Your task to perform on an android device: empty trash in the gmail app Image 0: 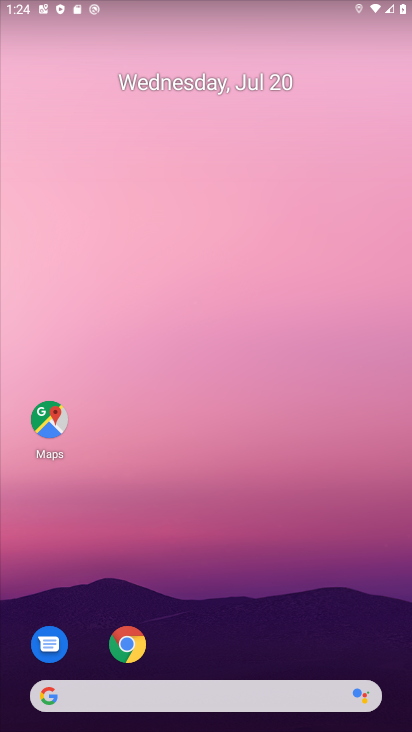
Step 0: press home button
Your task to perform on an android device: empty trash in the gmail app Image 1: 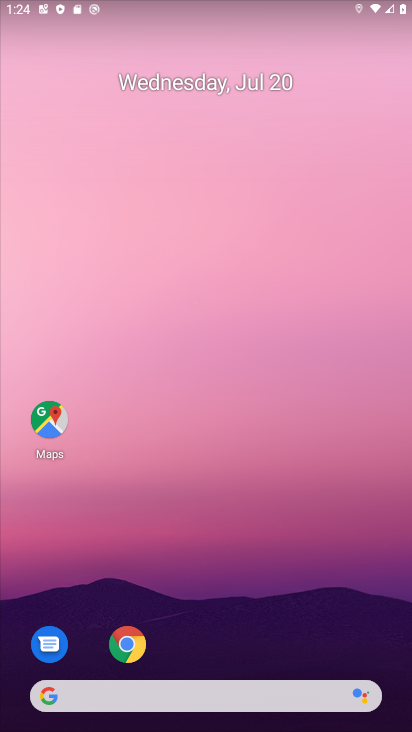
Step 1: drag from (217, 646) to (143, 0)
Your task to perform on an android device: empty trash in the gmail app Image 2: 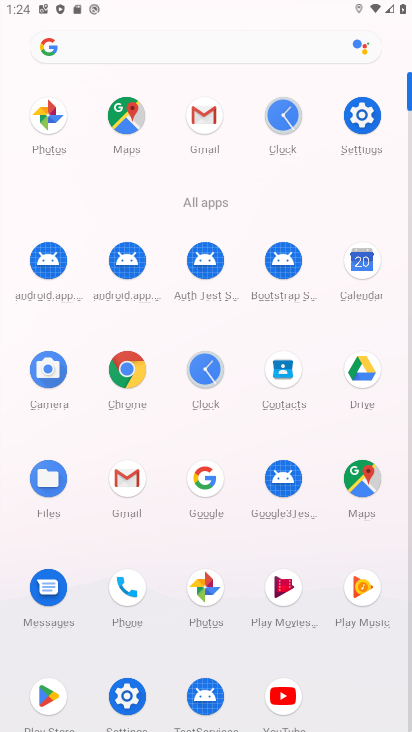
Step 2: click (128, 479)
Your task to perform on an android device: empty trash in the gmail app Image 3: 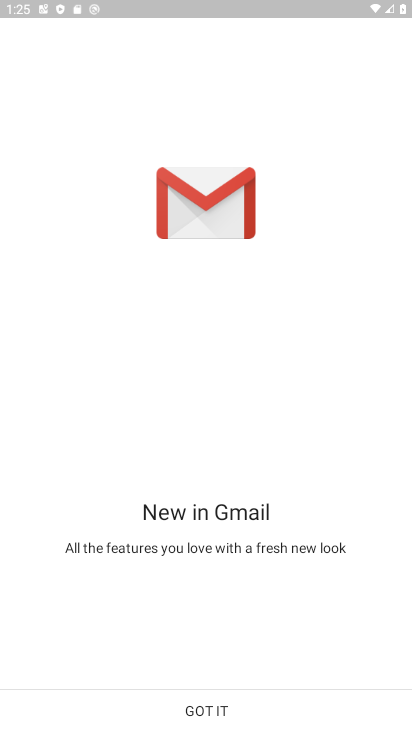
Step 3: click (203, 713)
Your task to perform on an android device: empty trash in the gmail app Image 4: 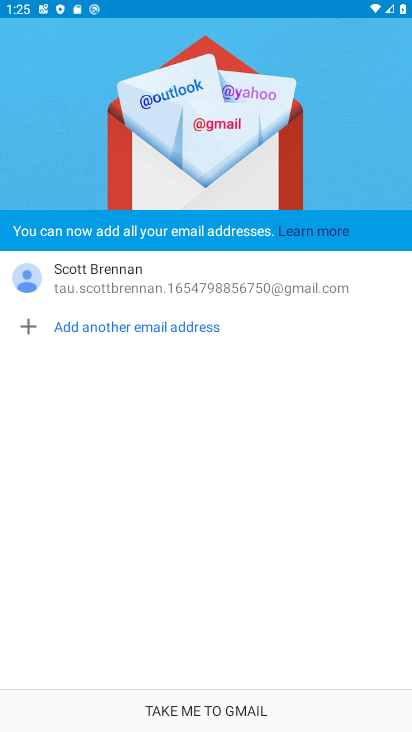
Step 4: click (203, 713)
Your task to perform on an android device: empty trash in the gmail app Image 5: 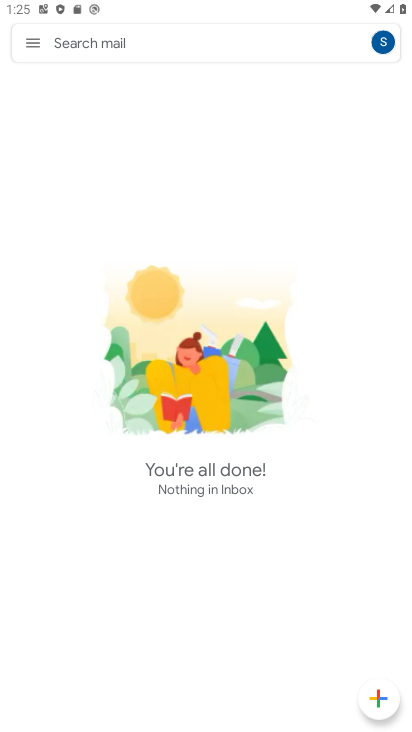
Step 5: click (32, 46)
Your task to perform on an android device: empty trash in the gmail app Image 6: 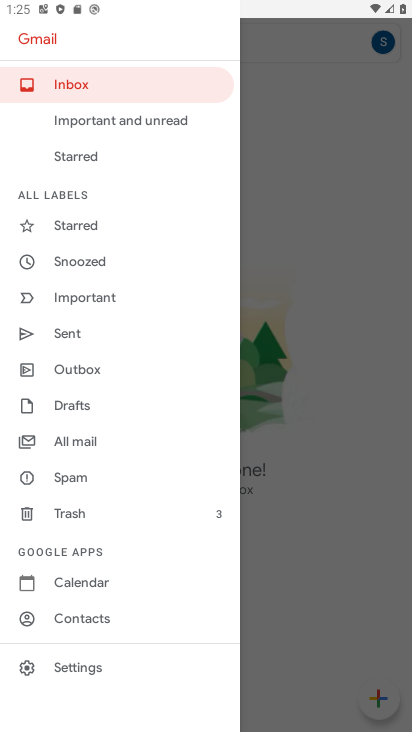
Step 6: click (69, 510)
Your task to perform on an android device: empty trash in the gmail app Image 7: 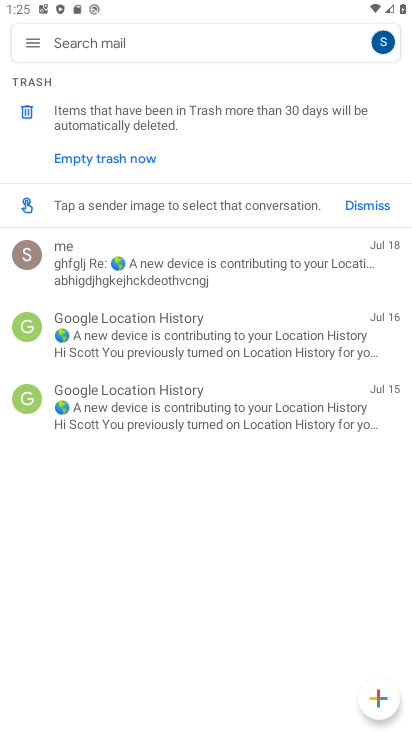
Step 7: click (19, 107)
Your task to perform on an android device: empty trash in the gmail app Image 8: 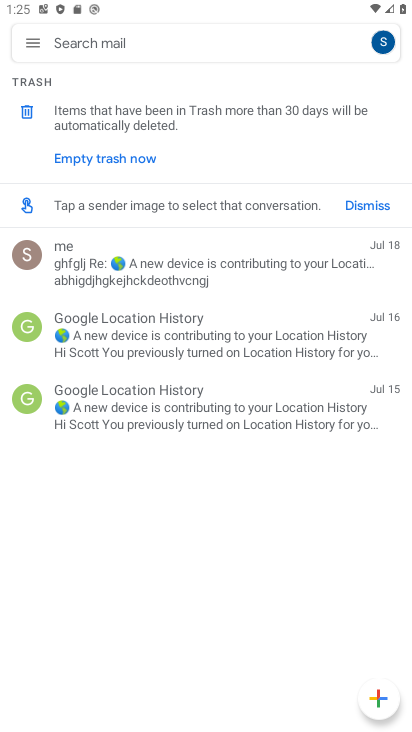
Step 8: click (120, 161)
Your task to perform on an android device: empty trash in the gmail app Image 9: 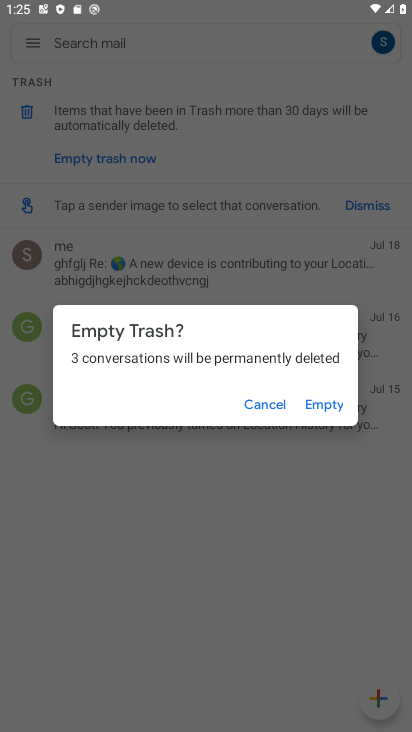
Step 9: click (316, 405)
Your task to perform on an android device: empty trash in the gmail app Image 10: 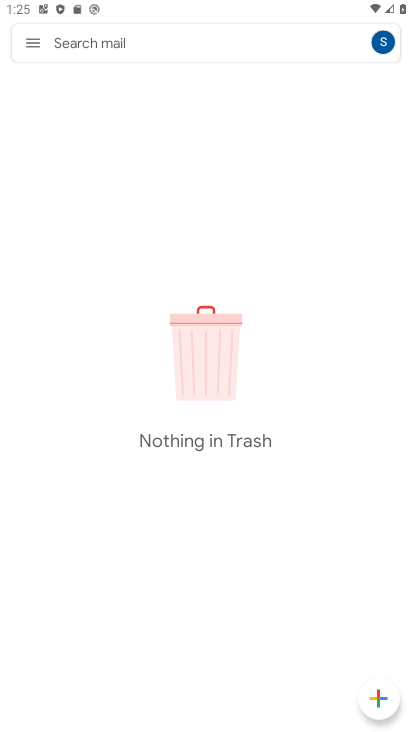
Step 10: task complete